Your task to perform on an android device: Go to sound settings Image 0: 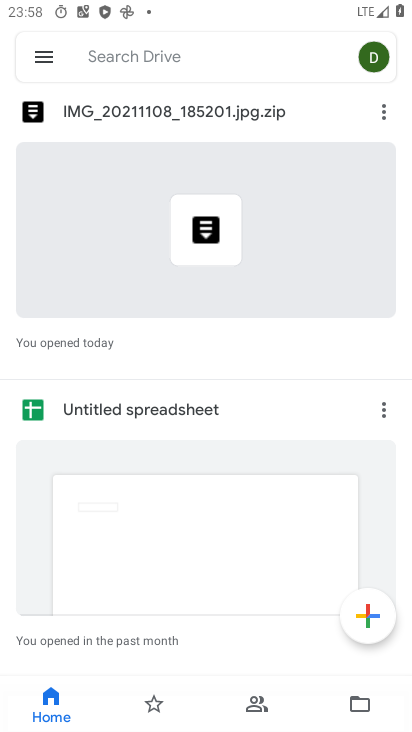
Step 0: click (403, 9)
Your task to perform on an android device: Go to sound settings Image 1: 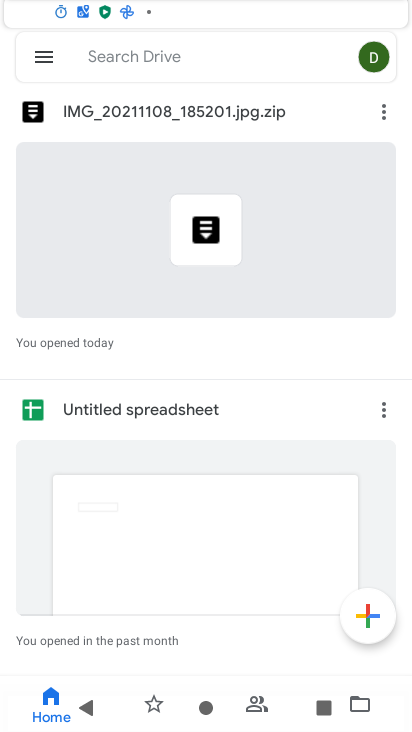
Step 1: press home button
Your task to perform on an android device: Go to sound settings Image 2: 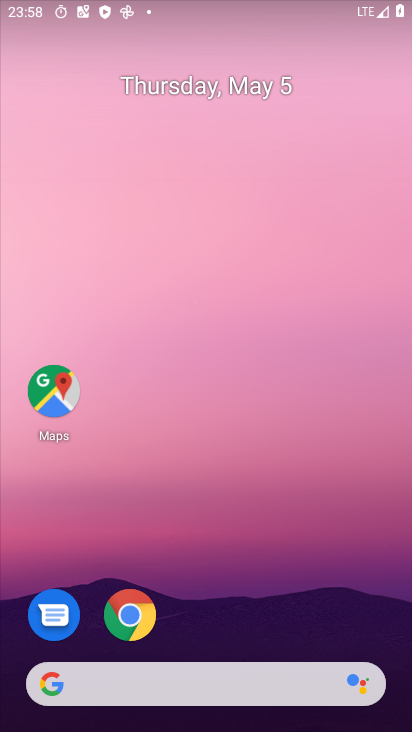
Step 2: drag from (203, 572) to (212, 18)
Your task to perform on an android device: Go to sound settings Image 3: 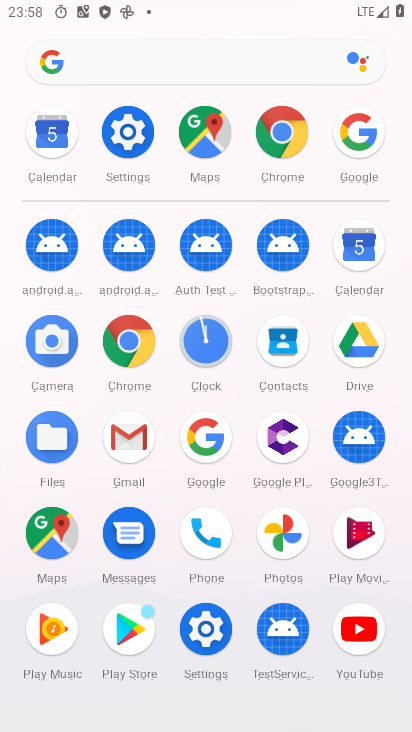
Step 3: click (131, 130)
Your task to perform on an android device: Go to sound settings Image 4: 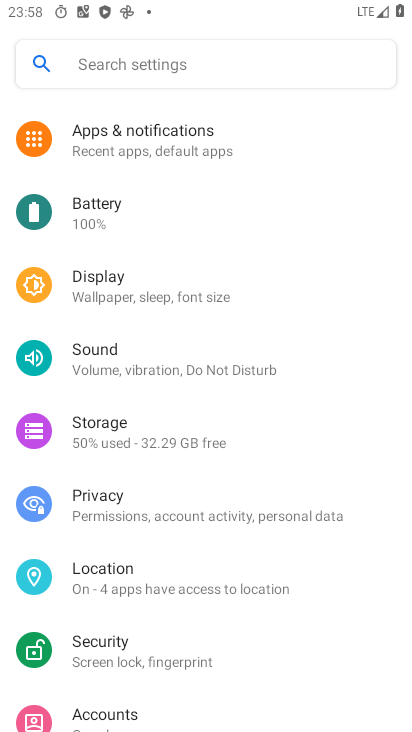
Step 4: click (121, 367)
Your task to perform on an android device: Go to sound settings Image 5: 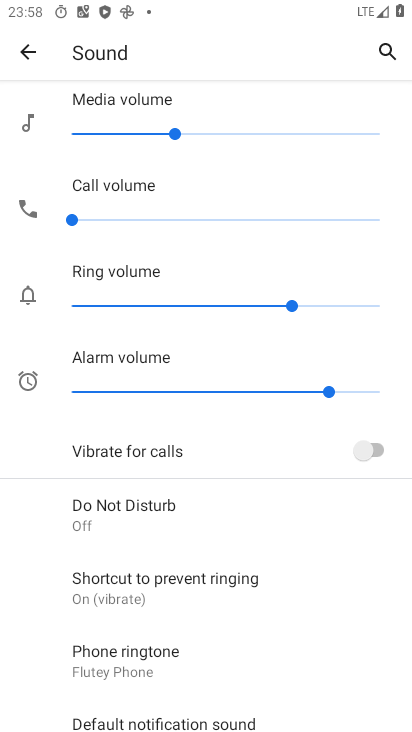
Step 5: task complete